Your task to perform on an android device: Open the web browser Image 0: 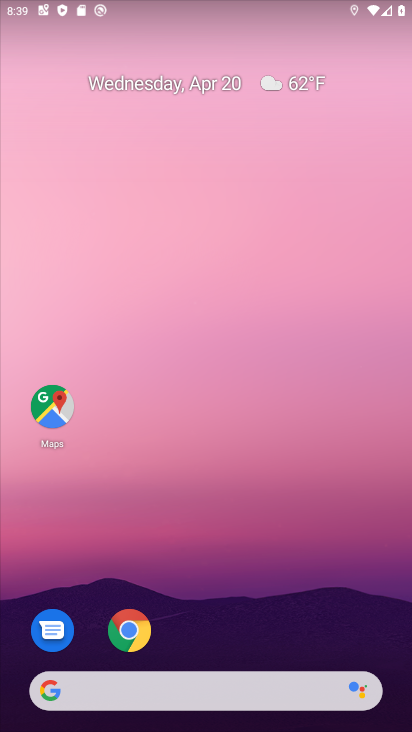
Step 0: drag from (181, 609) to (285, 6)
Your task to perform on an android device: Open the web browser Image 1: 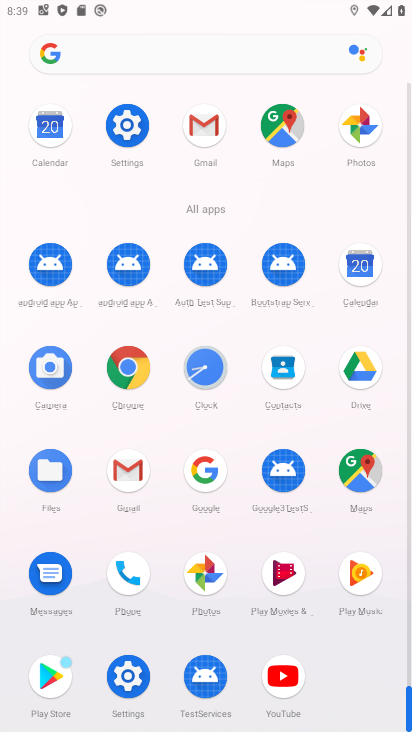
Step 1: click (130, 356)
Your task to perform on an android device: Open the web browser Image 2: 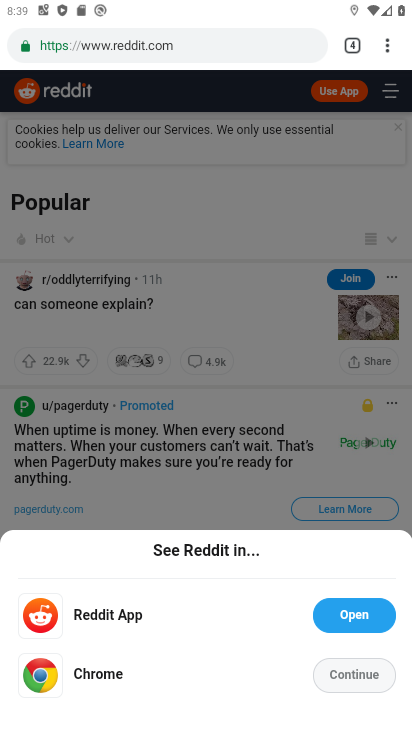
Step 2: click (350, 667)
Your task to perform on an android device: Open the web browser Image 3: 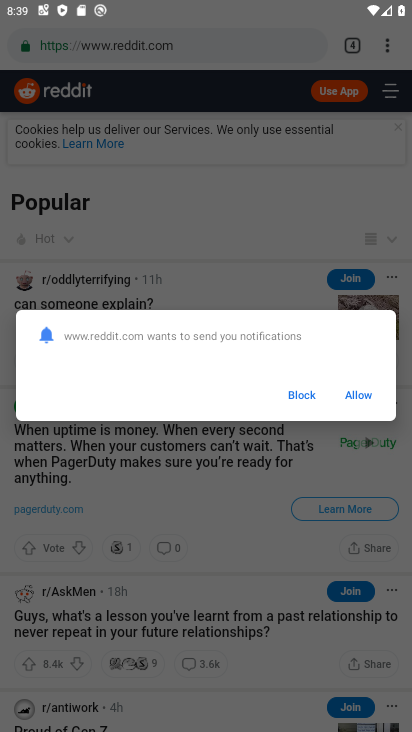
Step 3: click (309, 400)
Your task to perform on an android device: Open the web browser Image 4: 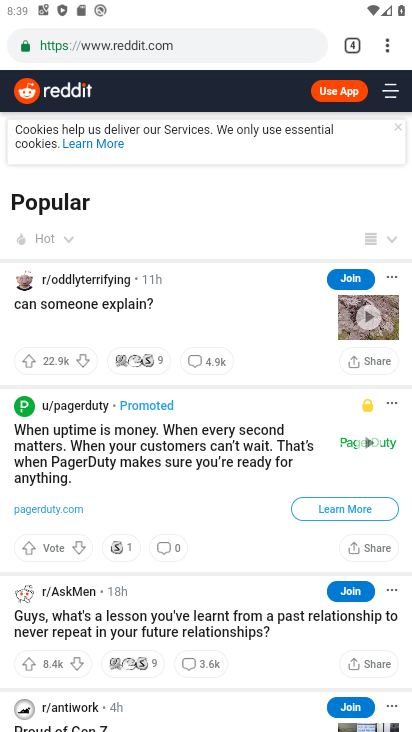
Step 4: task complete